Your task to perform on an android device: What is the recent news? Image 0: 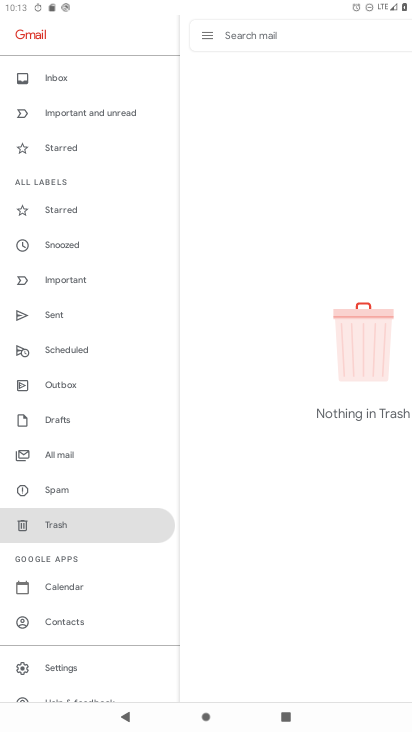
Step 0: press home button
Your task to perform on an android device: What is the recent news? Image 1: 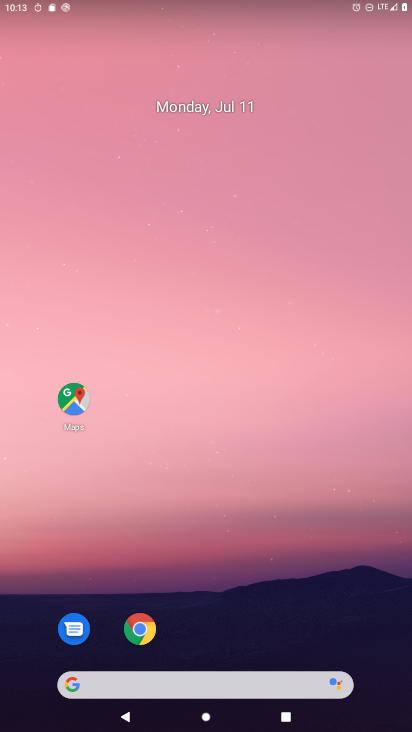
Step 1: click (170, 682)
Your task to perform on an android device: What is the recent news? Image 2: 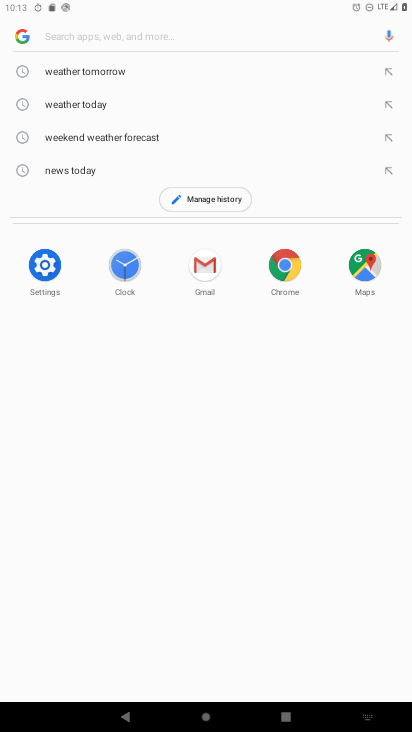
Step 2: click (27, 43)
Your task to perform on an android device: What is the recent news? Image 3: 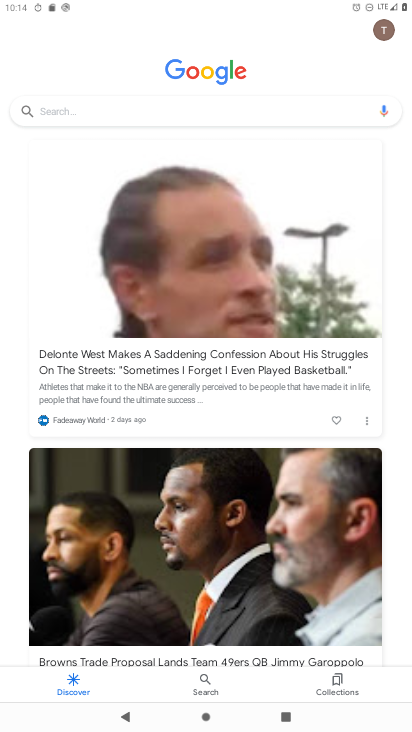
Step 3: task complete